Your task to perform on an android device: turn on translation in the chrome app Image 0: 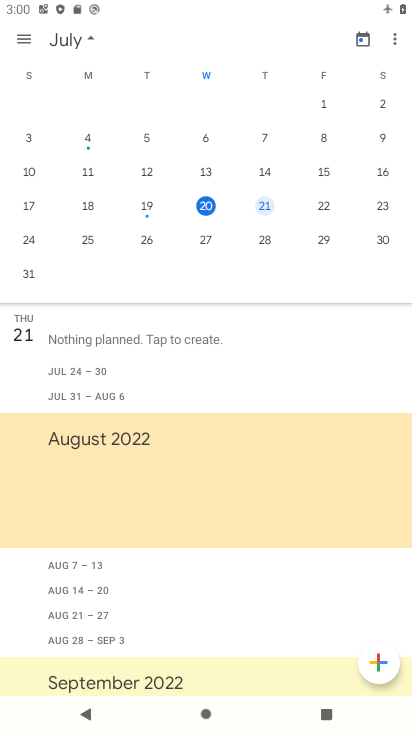
Step 0: press home button
Your task to perform on an android device: turn on translation in the chrome app Image 1: 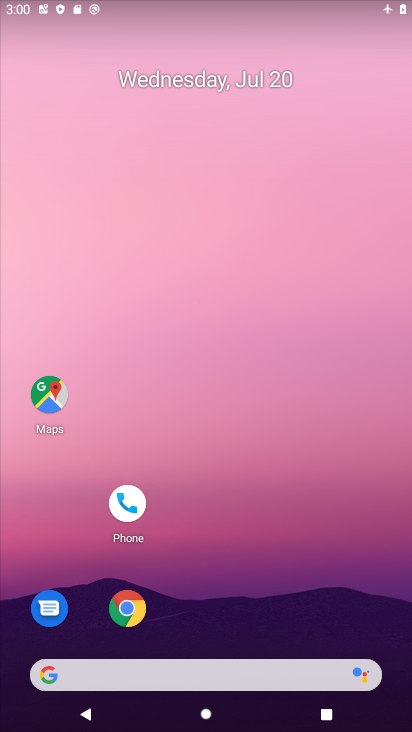
Step 1: drag from (291, 616) to (271, 115)
Your task to perform on an android device: turn on translation in the chrome app Image 2: 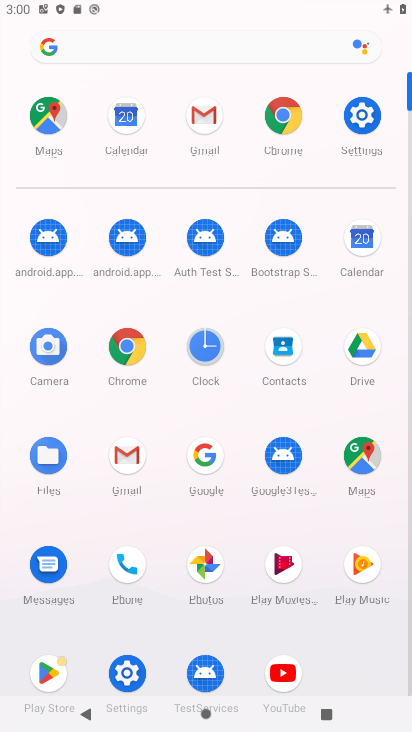
Step 2: click (282, 116)
Your task to perform on an android device: turn on translation in the chrome app Image 3: 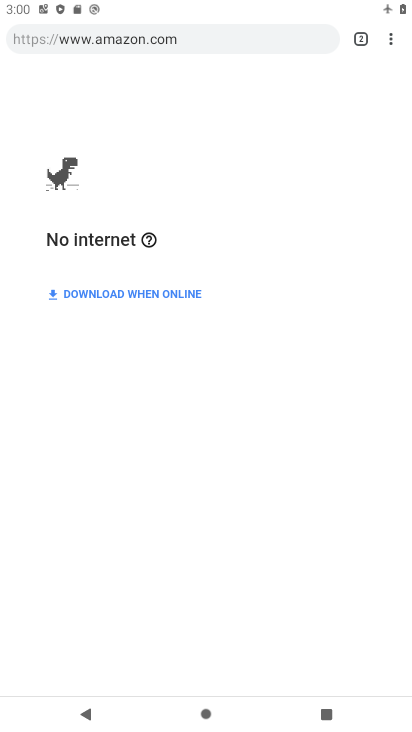
Step 3: drag from (388, 35) to (264, 446)
Your task to perform on an android device: turn on translation in the chrome app Image 4: 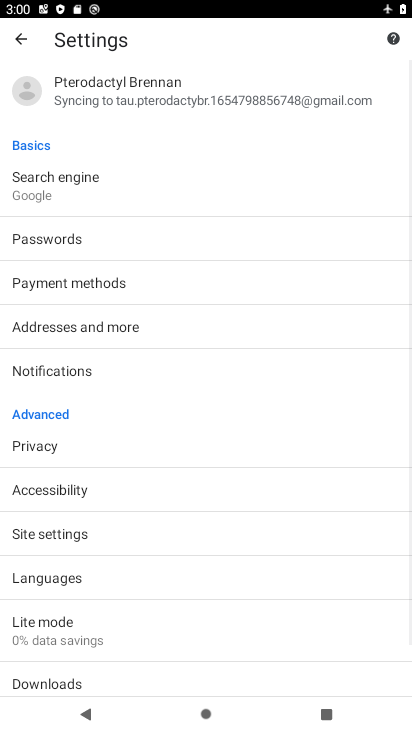
Step 4: drag from (256, 640) to (296, 139)
Your task to perform on an android device: turn on translation in the chrome app Image 5: 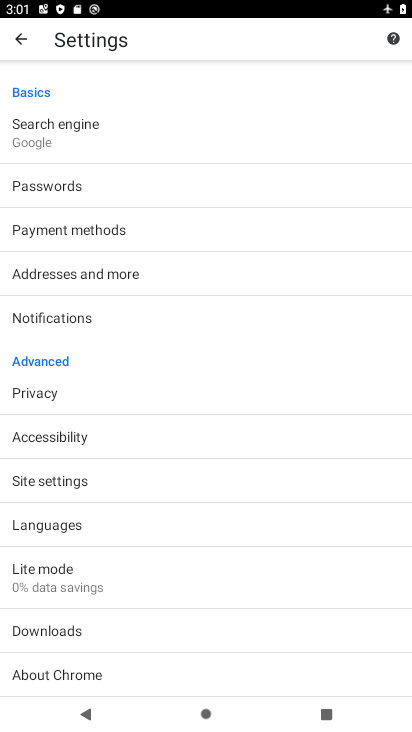
Step 5: click (84, 527)
Your task to perform on an android device: turn on translation in the chrome app Image 6: 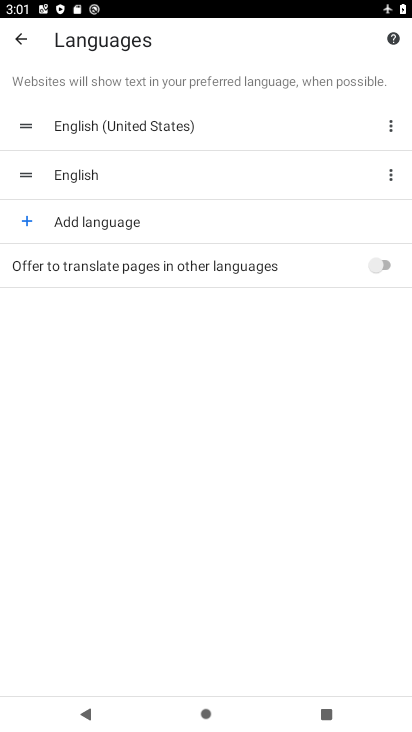
Step 6: click (379, 262)
Your task to perform on an android device: turn on translation in the chrome app Image 7: 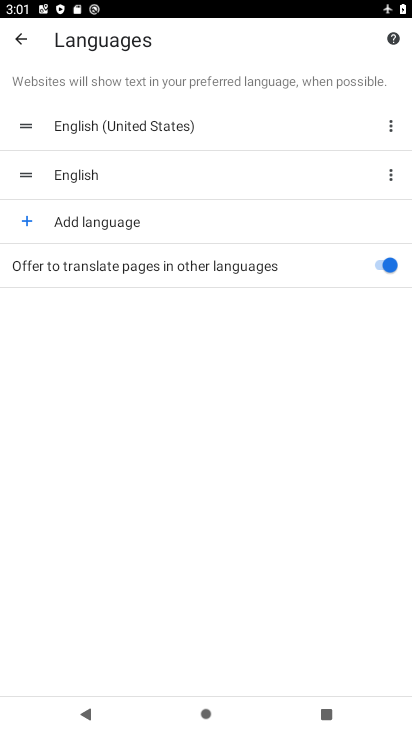
Step 7: task complete